Your task to perform on an android device: Go to privacy settings Image 0: 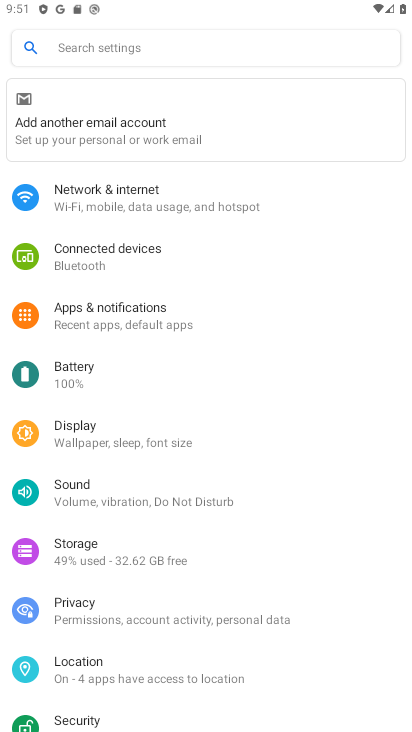
Step 0: press home button
Your task to perform on an android device: Go to privacy settings Image 1: 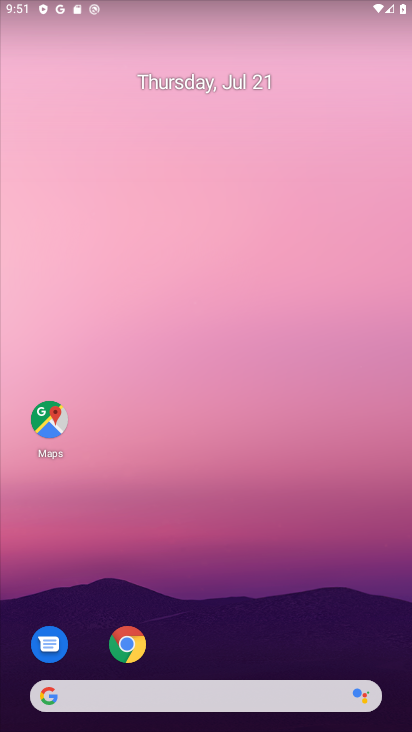
Step 1: drag from (208, 652) to (223, 108)
Your task to perform on an android device: Go to privacy settings Image 2: 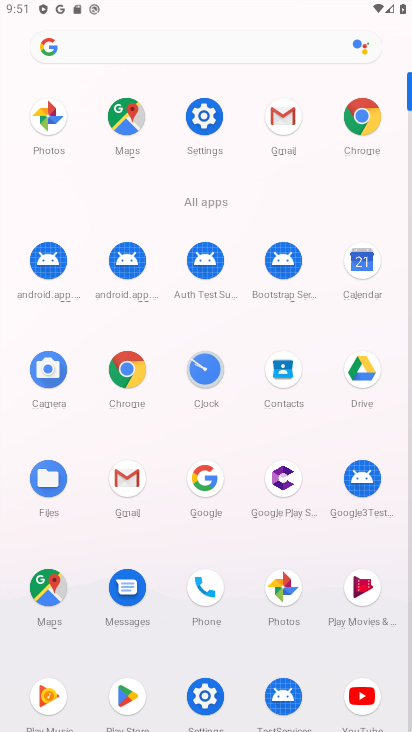
Step 2: click (202, 110)
Your task to perform on an android device: Go to privacy settings Image 3: 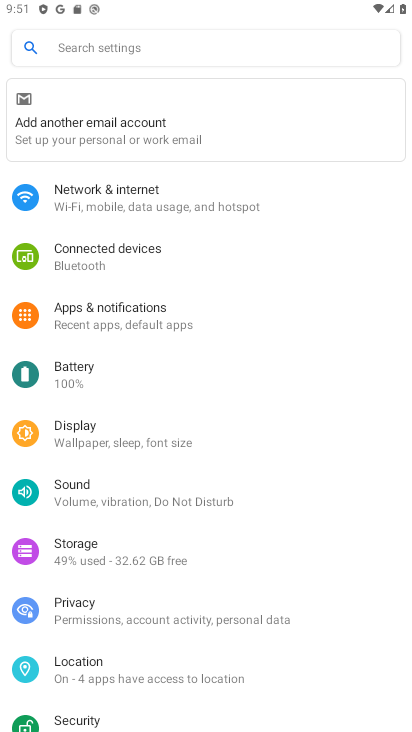
Step 3: click (112, 602)
Your task to perform on an android device: Go to privacy settings Image 4: 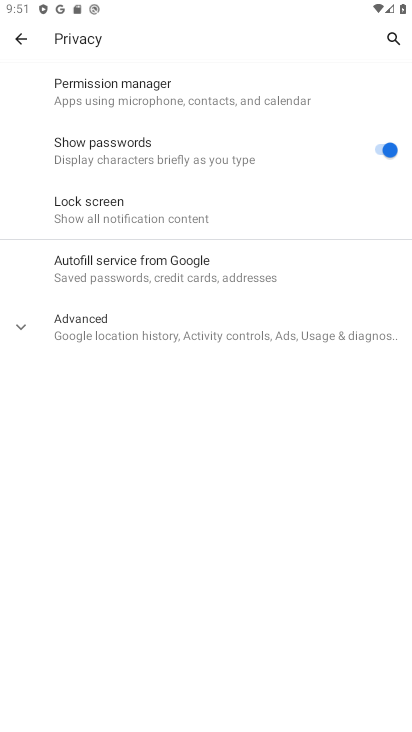
Step 4: click (19, 325)
Your task to perform on an android device: Go to privacy settings Image 5: 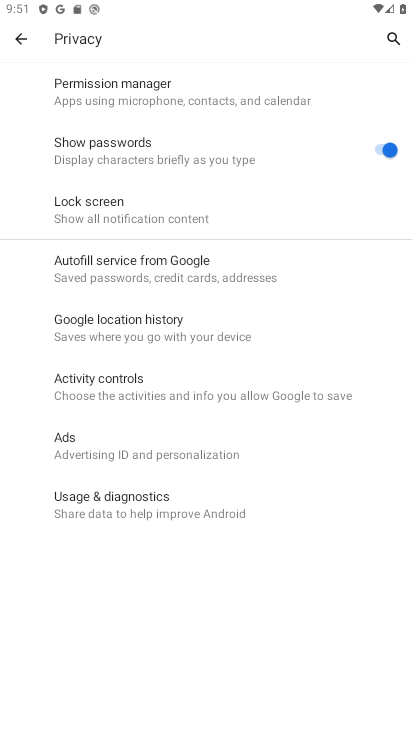
Step 5: task complete